Your task to perform on an android device: turn pop-ups on in chrome Image 0: 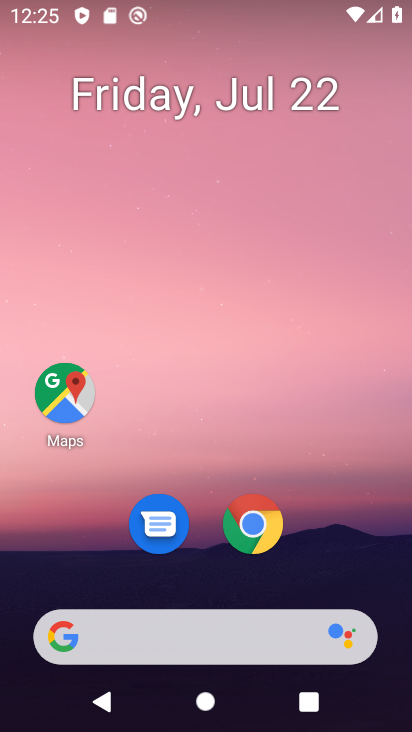
Step 0: press home button
Your task to perform on an android device: turn pop-ups on in chrome Image 1: 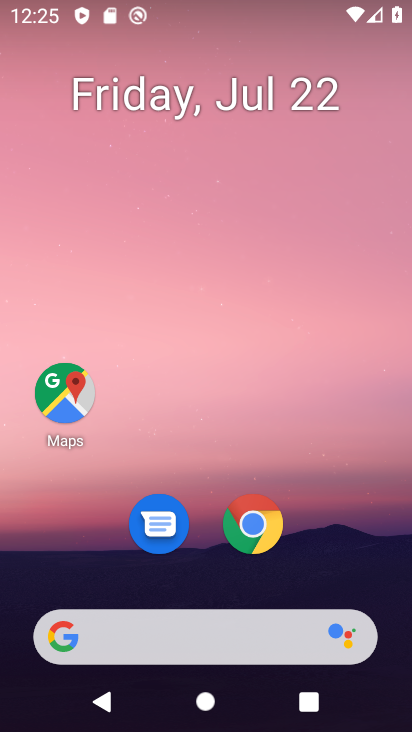
Step 1: click (267, 543)
Your task to perform on an android device: turn pop-ups on in chrome Image 2: 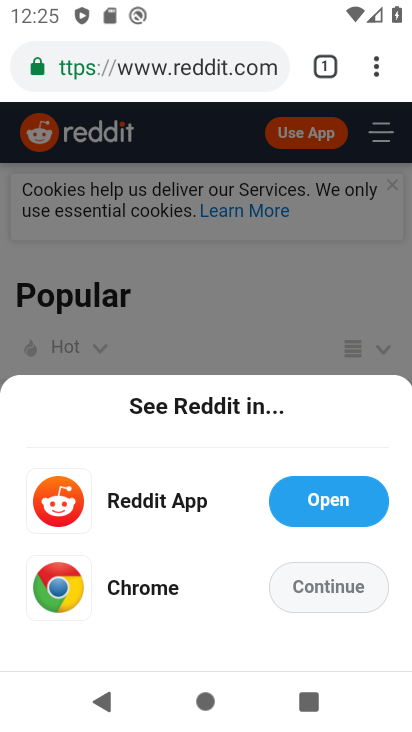
Step 2: drag from (377, 65) to (215, 527)
Your task to perform on an android device: turn pop-ups on in chrome Image 3: 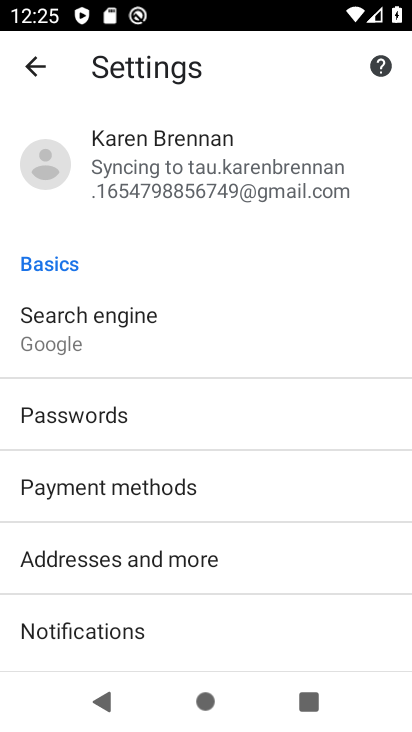
Step 3: drag from (186, 601) to (285, 287)
Your task to perform on an android device: turn pop-ups on in chrome Image 4: 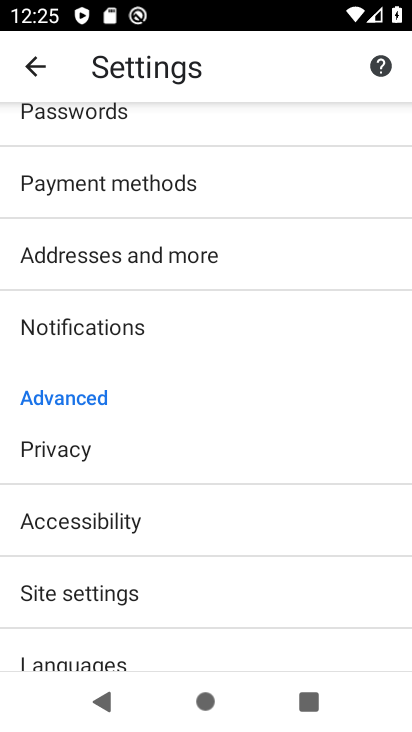
Step 4: click (130, 604)
Your task to perform on an android device: turn pop-ups on in chrome Image 5: 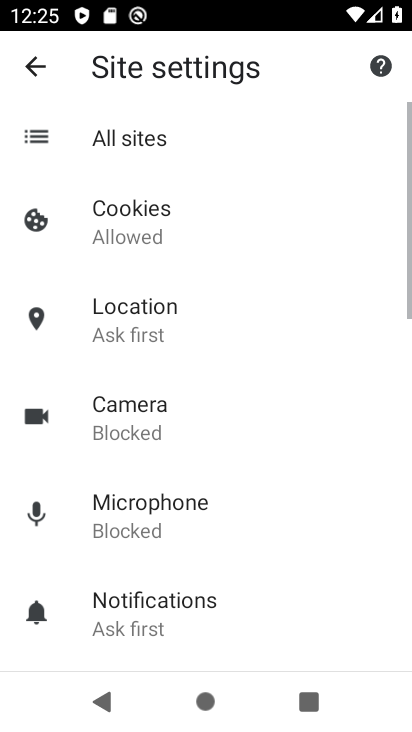
Step 5: drag from (223, 593) to (322, 165)
Your task to perform on an android device: turn pop-ups on in chrome Image 6: 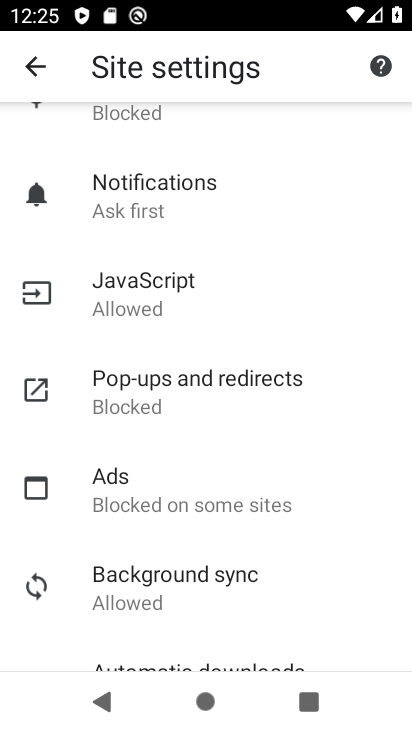
Step 6: click (188, 372)
Your task to perform on an android device: turn pop-ups on in chrome Image 7: 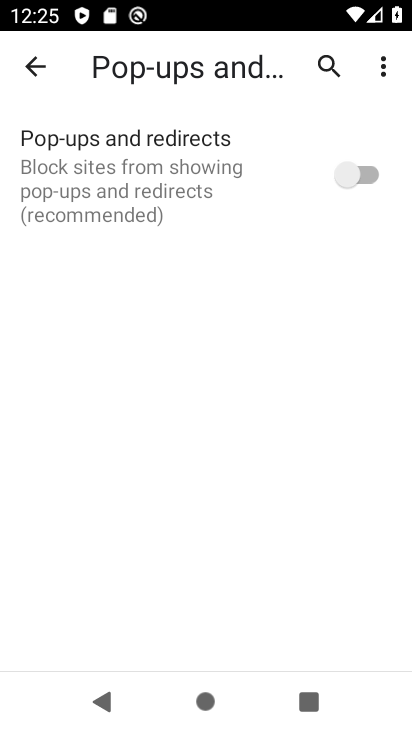
Step 7: click (369, 170)
Your task to perform on an android device: turn pop-ups on in chrome Image 8: 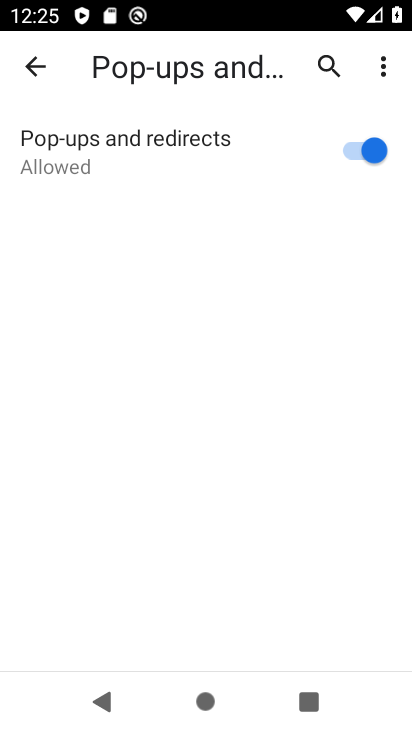
Step 8: task complete